Your task to perform on an android device: check data usage Image 0: 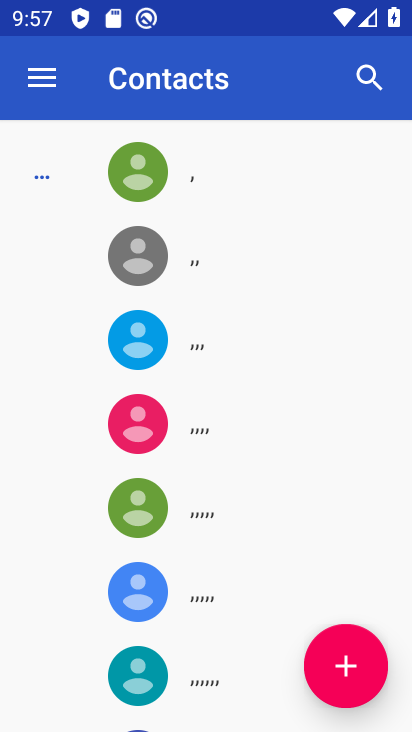
Step 0: press back button
Your task to perform on an android device: check data usage Image 1: 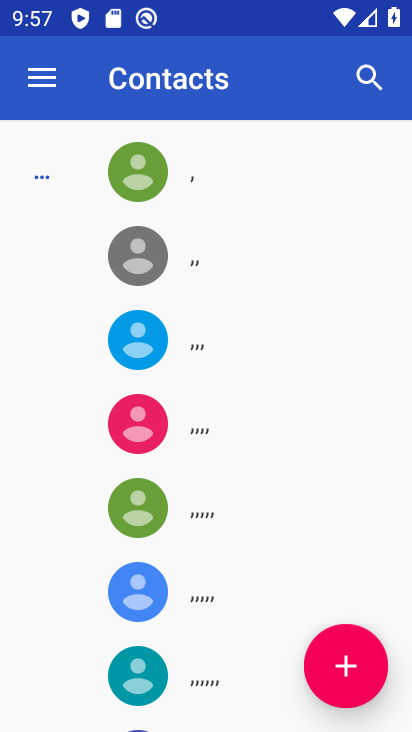
Step 1: press back button
Your task to perform on an android device: check data usage Image 2: 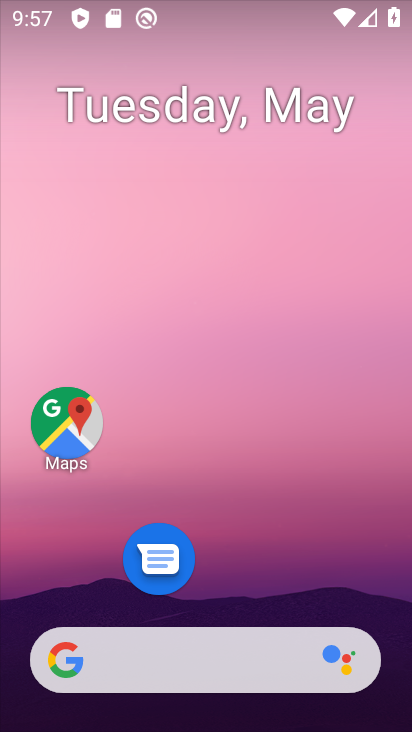
Step 2: drag from (284, 690) to (265, 86)
Your task to perform on an android device: check data usage Image 3: 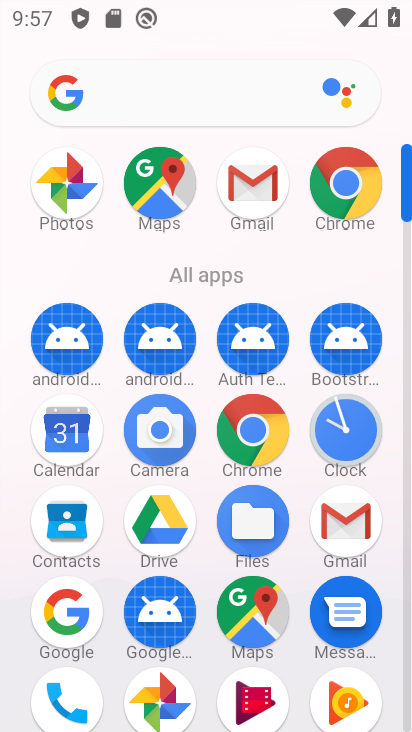
Step 3: drag from (297, 588) to (284, 249)
Your task to perform on an android device: check data usage Image 4: 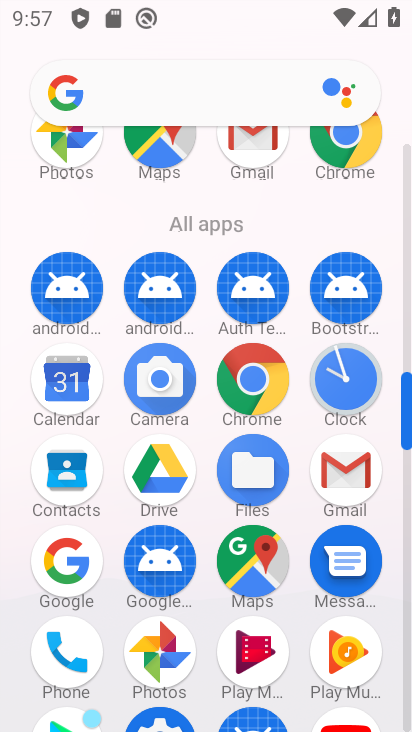
Step 4: drag from (316, 503) to (332, 128)
Your task to perform on an android device: check data usage Image 5: 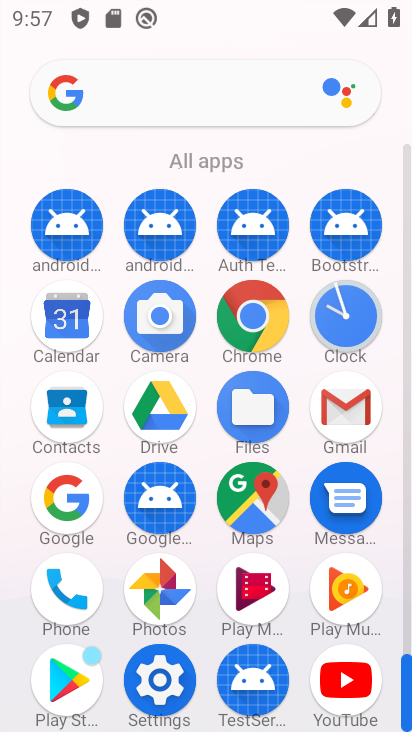
Step 5: drag from (255, 393) to (226, 130)
Your task to perform on an android device: check data usage Image 6: 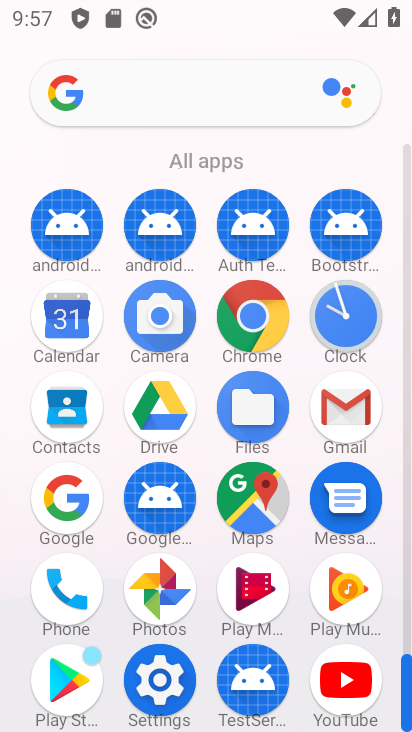
Step 6: click (157, 695)
Your task to perform on an android device: check data usage Image 7: 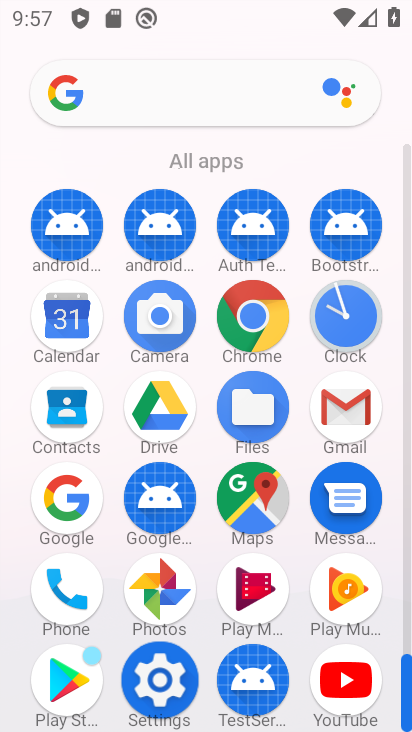
Step 7: click (157, 695)
Your task to perform on an android device: check data usage Image 8: 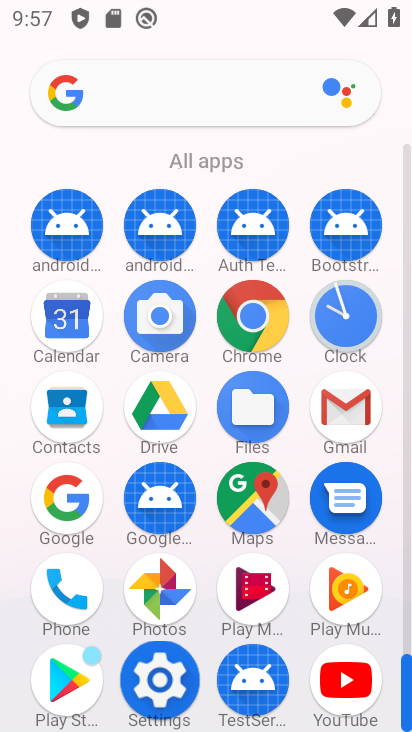
Step 8: click (163, 687)
Your task to perform on an android device: check data usage Image 9: 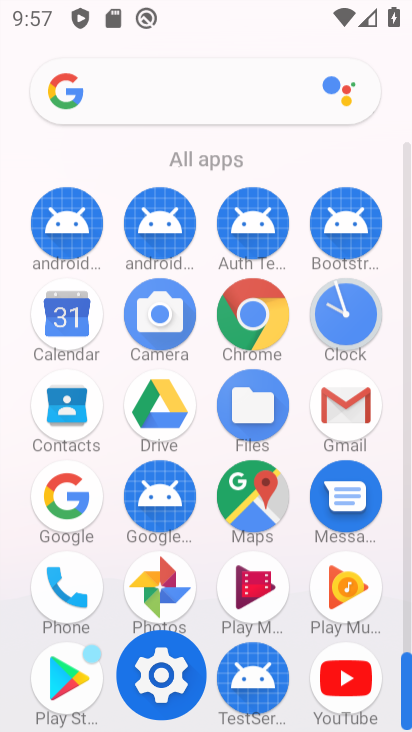
Step 9: click (157, 683)
Your task to perform on an android device: check data usage Image 10: 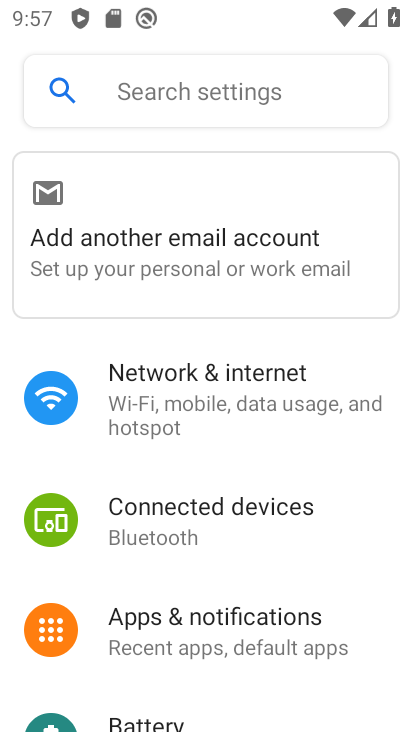
Step 10: drag from (197, 477) to (148, 150)
Your task to perform on an android device: check data usage Image 11: 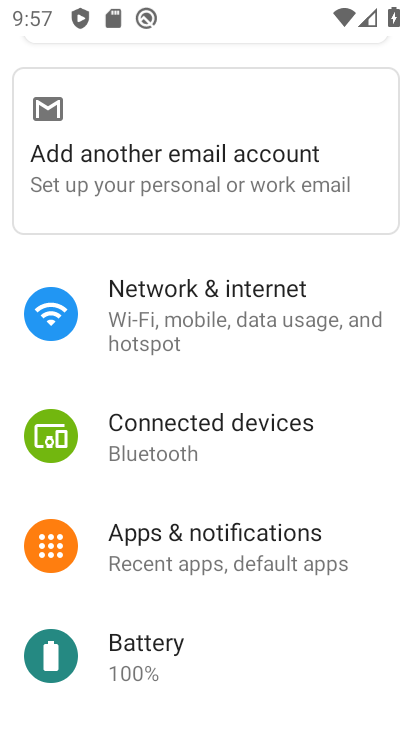
Step 11: drag from (244, 479) to (188, 103)
Your task to perform on an android device: check data usage Image 12: 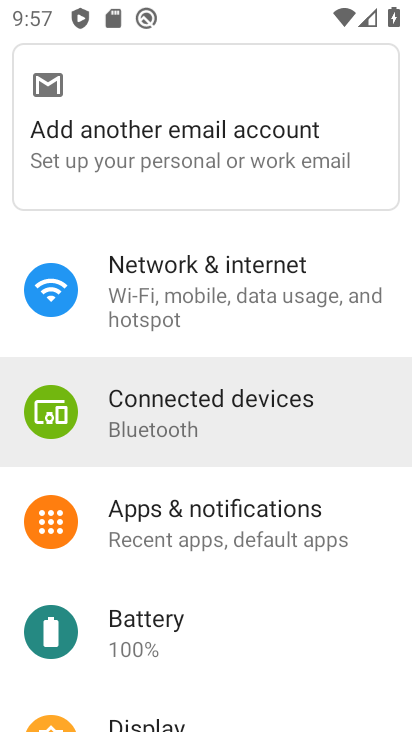
Step 12: drag from (196, 457) to (206, 185)
Your task to perform on an android device: check data usage Image 13: 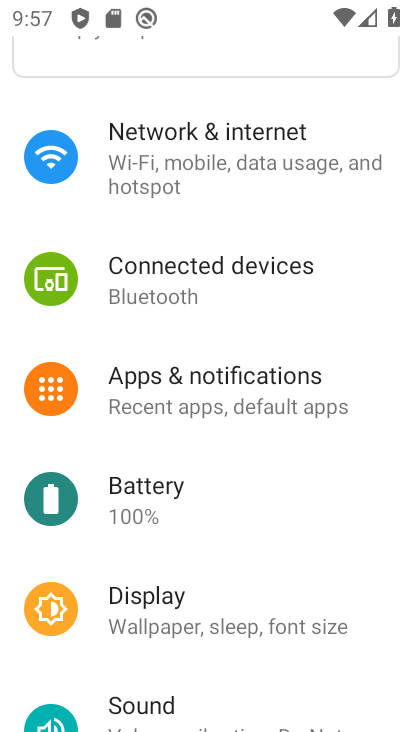
Step 13: click (189, 391)
Your task to perform on an android device: check data usage Image 14: 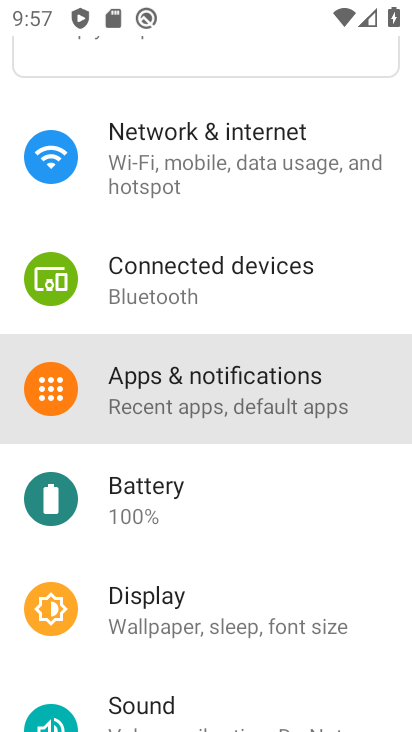
Step 14: click (189, 392)
Your task to perform on an android device: check data usage Image 15: 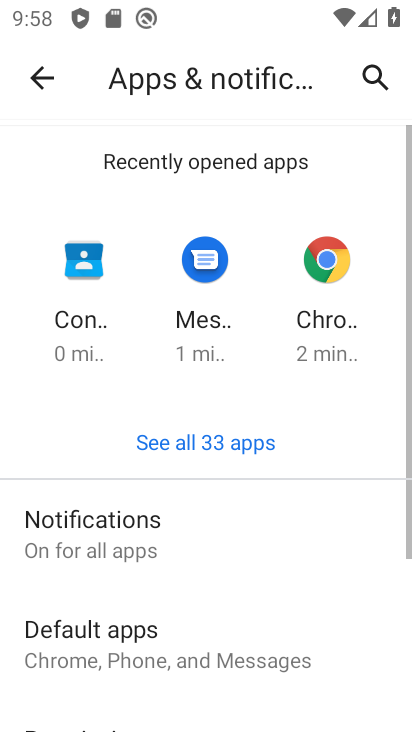
Step 15: click (70, 521)
Your task to perform on an android device: check data usage Image 16: 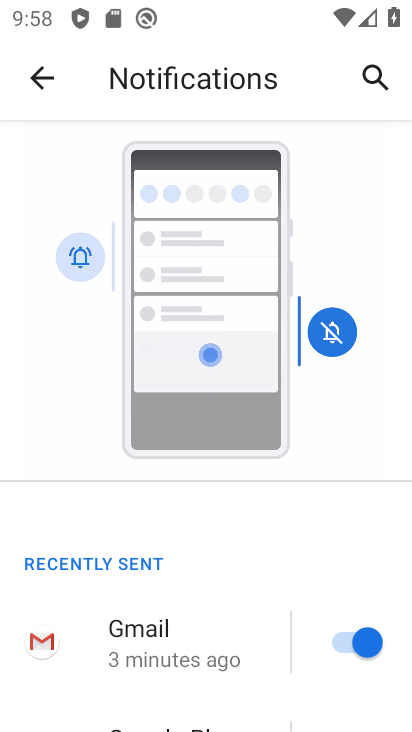
Step 16: drag from (230, 580) to (194, 250)
Your task to perform on an android device: check data usage Image 17: 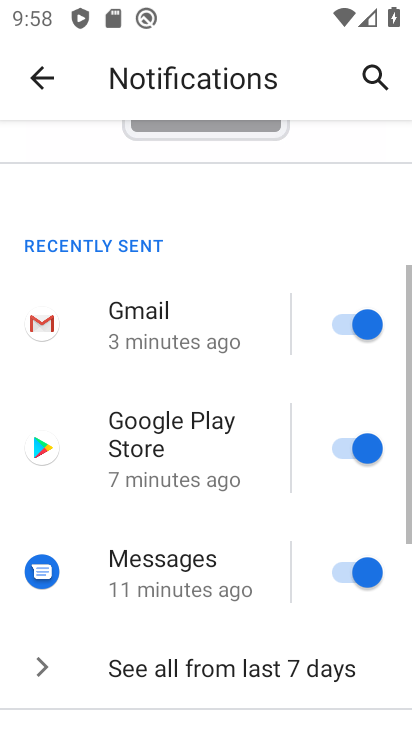
Step 17: drag from (208, 462) to (129, 143)
Your task to perform on an android device: check data usage Image 18: 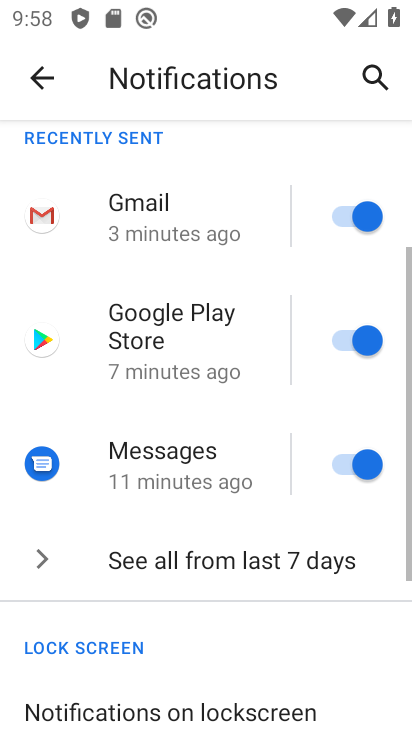
Step 18: drag from (259, 487) to (207, 94)
Your task to perform on an android device: check data usage Image 19: 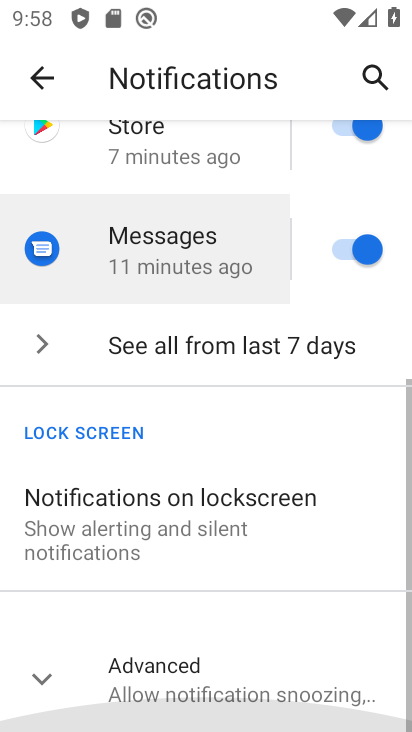
Step 19: drag from (232, 511) to (175, 182)
Your task to perform on an android device: check data usage Image 20: 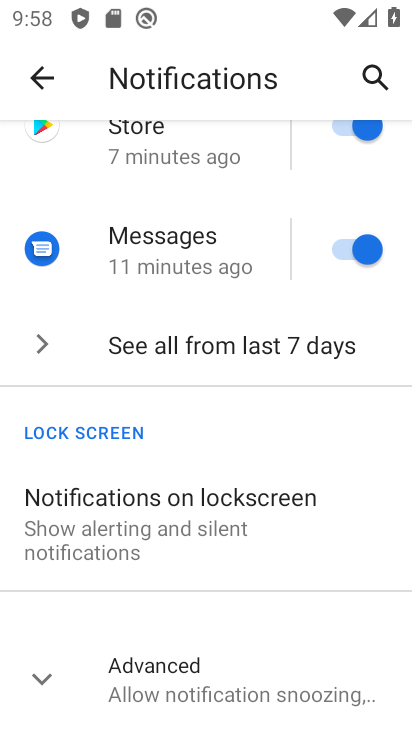
Step 20: click (40, 68)
Your task to perform on an android device: check data usage Image 21: 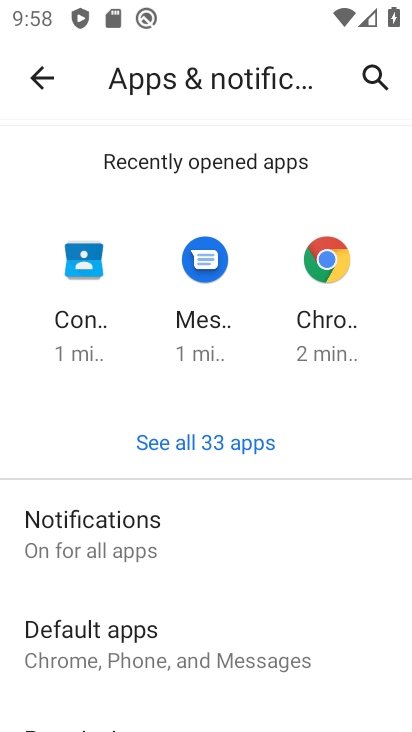
Step 21: click (36, 81)
Your task to perform on an android device: check data usage Image 22: 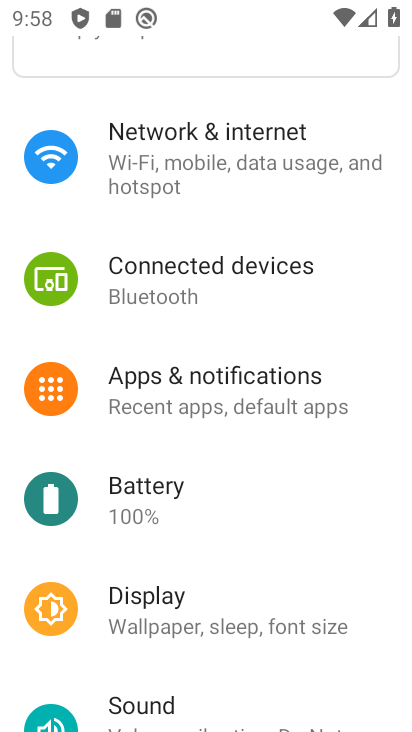
Step 22: click (153, 162)
Your task to perform on an android device: check data usage Image 23: 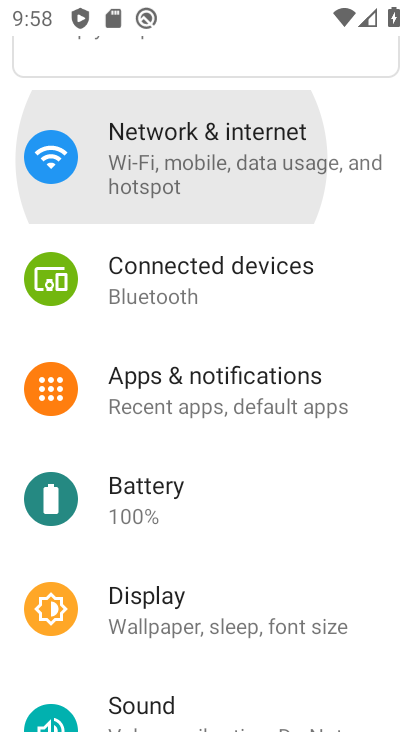
Step 23: click (153, 162)
Your task to perform on an android device: check data usage Image 24: 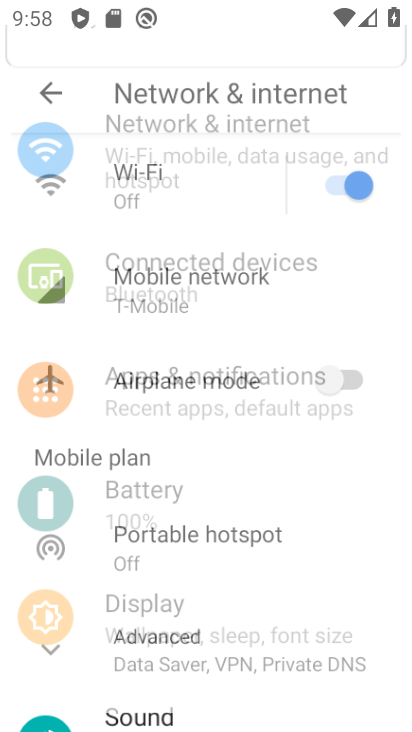
Step 24: click (153, 162)
Your task to perform on an android device: check data usage Image 25: 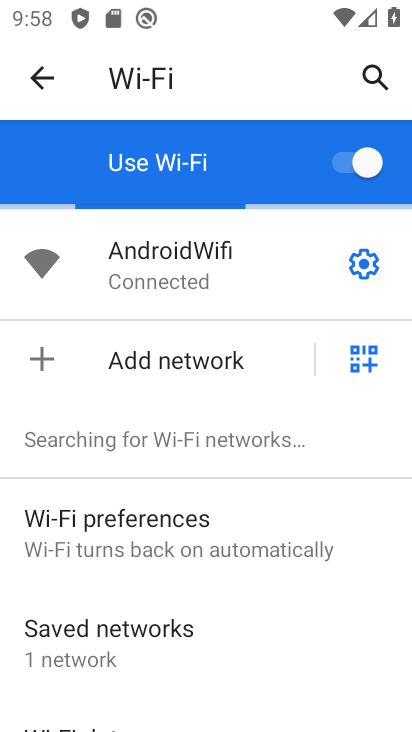
Step 25: click (45, 76)
Your task to perform on an android device: check data usage Image 26: 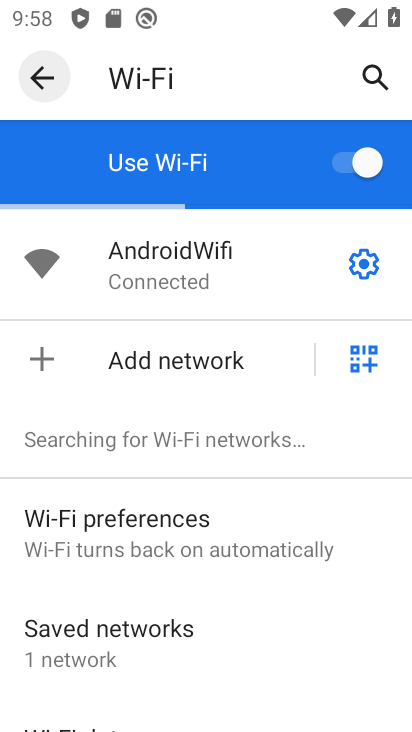
Step 26: click (45, 76)
Your task to perform on an android device: check data usage Image 27: 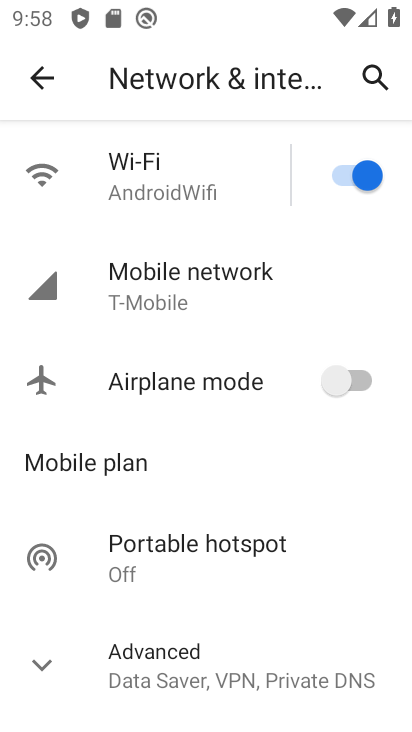
Step 27: task complete